Your task to perform on an android device: turn on the 12-hour format for clock Image 0: 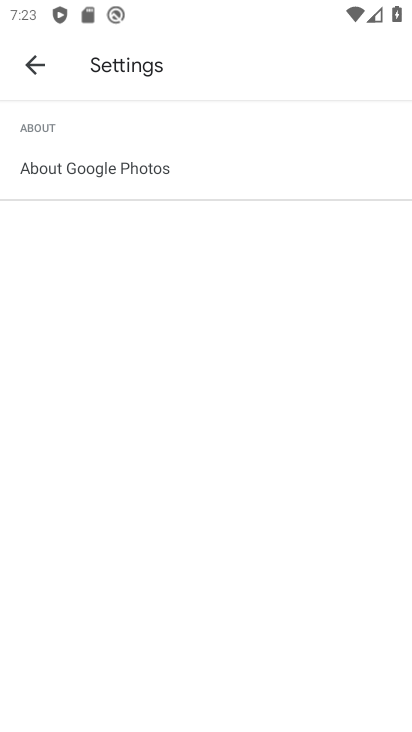
Step 0: press home button
Your task to perform on an android device: turn on the 12-hour format for clock Image 1: 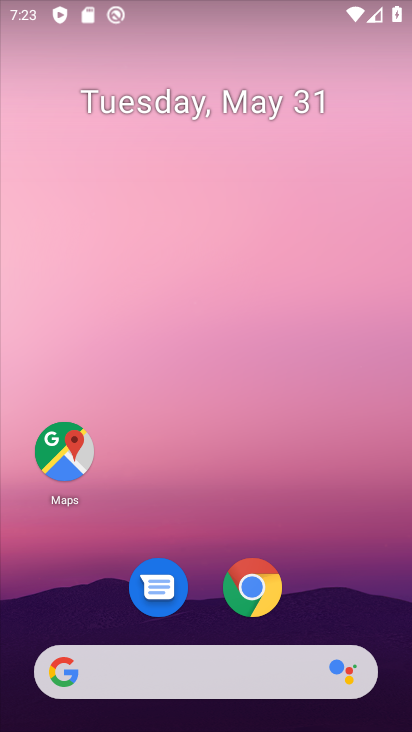
Step 1: drag from (206, 629) to (186, 176)
Your task to perform on an android device: turn on the 12-hour format for clock Image 2: 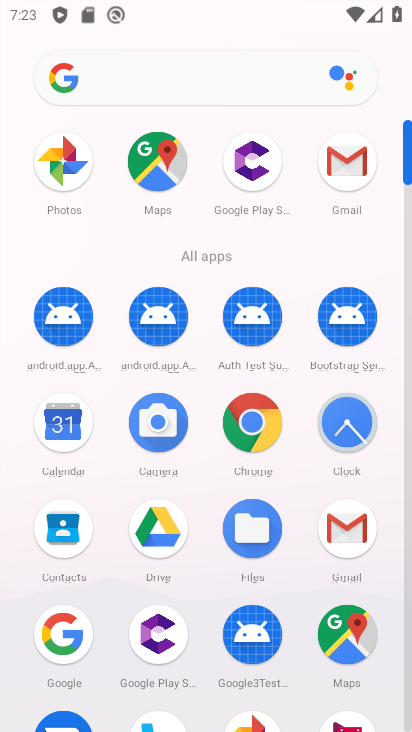
Step 2: click (345, 456)
Your task to perform on an android device: turn on the 12-hour format for clock Image 3: 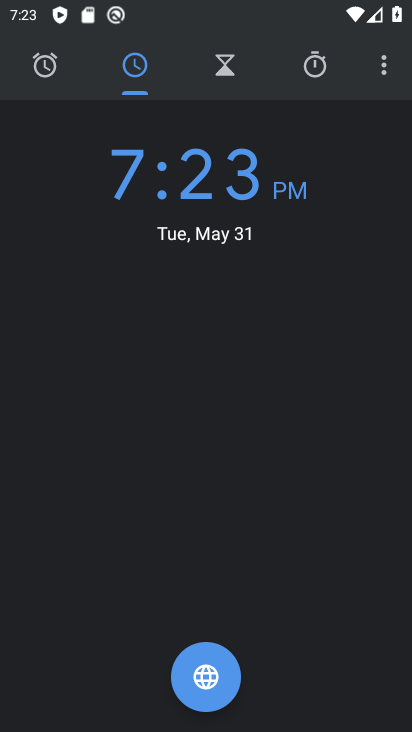
Step 3: click (389, 74)
Your task to perform on an android device: turn on the 12-hour format for clock Image 4: 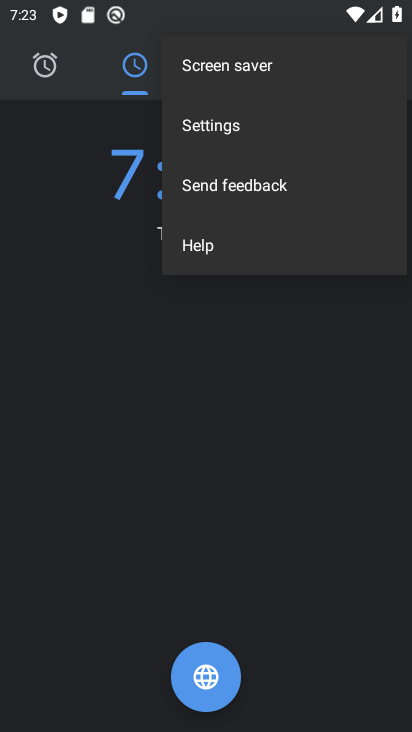
Step 4: click (207, 130)
Your task to perform on an android device: turn on the 12-hour format for clock Image 5: 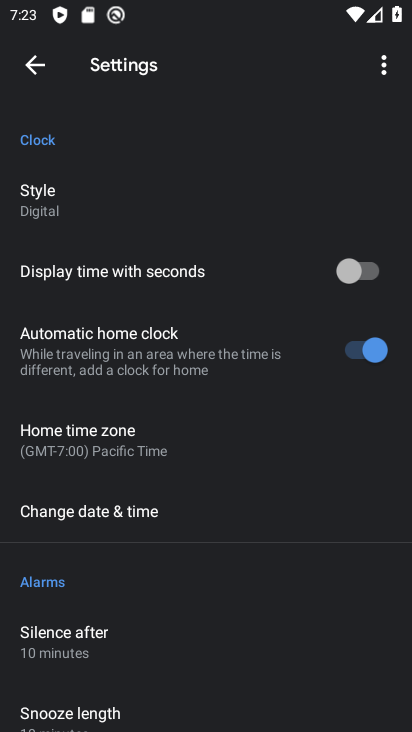
Step 5: click (124, 524)
Your task to perform on an android device: turn on the 12-hour format for clock Image 6: 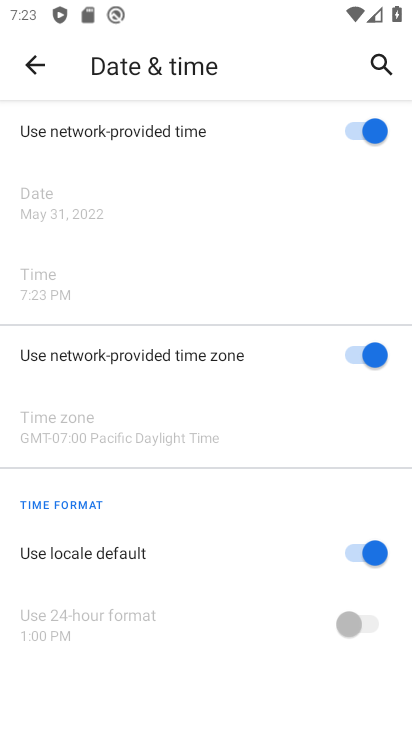
Step 6: task complete